Your task to perform on an android device: Open ESPN.com Image 0: 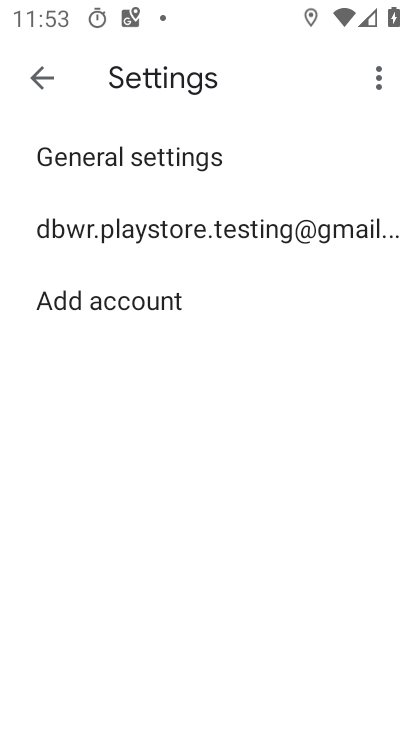
Step 0: drag from (332, 583) to (325, 201)
Your task to perform on an android device: Open ESPN.com Image 1: 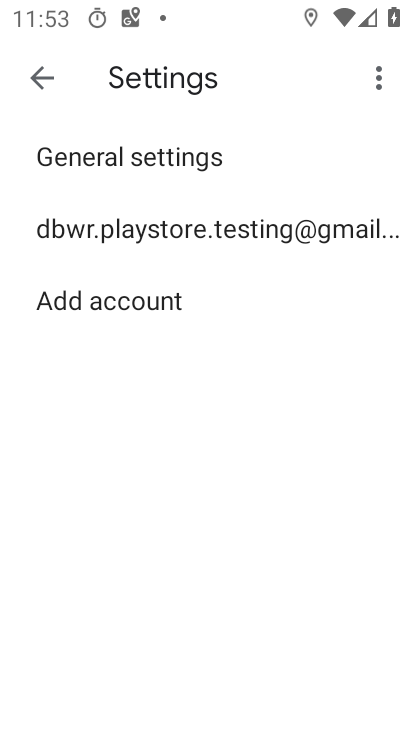
Step 1: press home button
Your task to perform on an android device: Open ESPN.com Image 2: 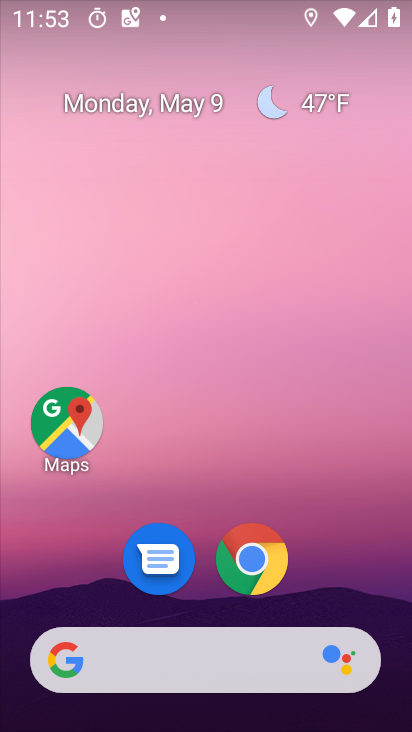
Step 2: click (213, 593)
Your task to perform on an android device: Open ESPN.com Image 3: 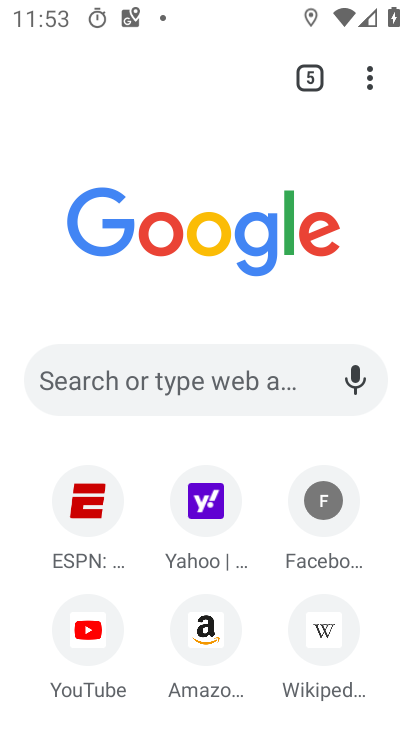
Step 3: click (83, 480)
Your task to perform on an android device: Open ESPN.com Image 4: 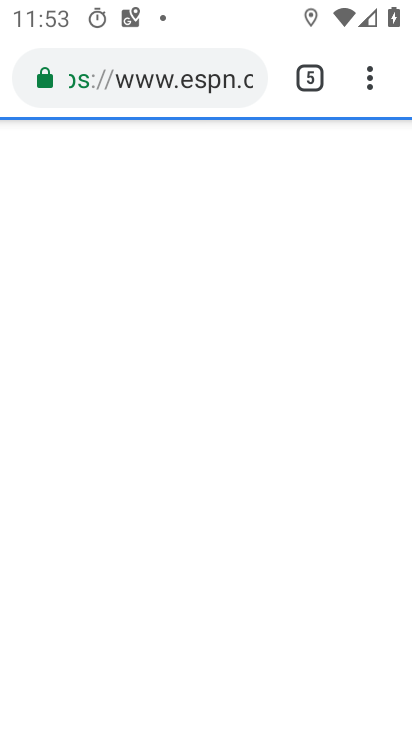
Step 4: task complete